Your task to perform on an android device: Open internet settings Image 0: 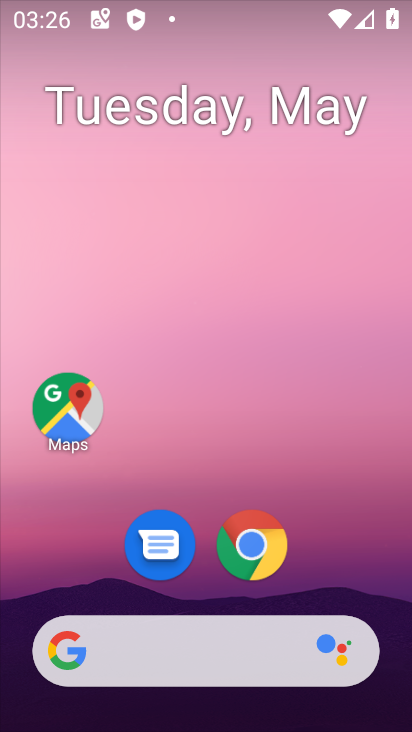
Step 0: drag from (388, 604) to (298, 81)
Your task to perform on an android device: Open internet settings Image 1: 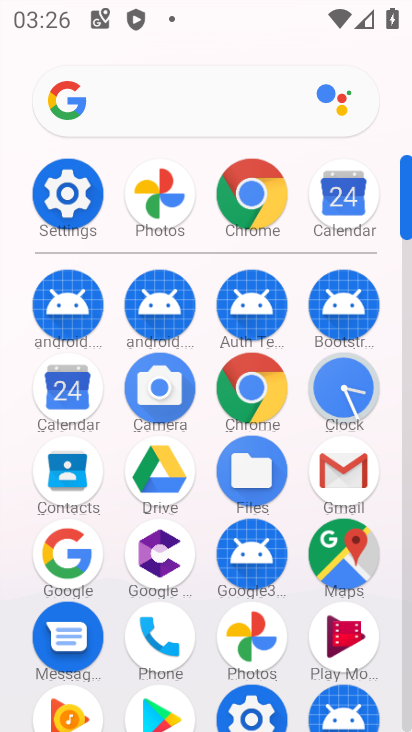
Step 1: click (408, 697)
Your task to perform on an android device: Open internet settings Image 2: 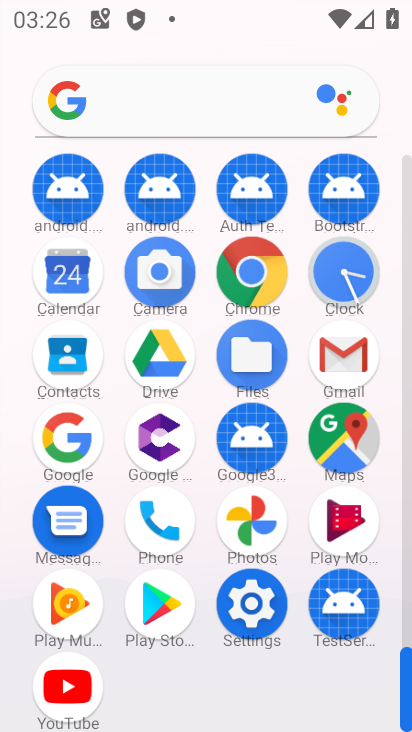
Step 2: click (250, 599)
Your task to perform on an android device: Open internet settings Image 3: 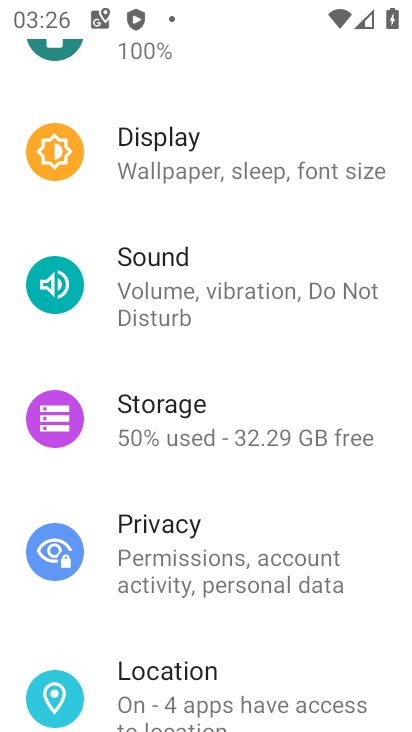
Step 3: drag from (330, 166) to (333, 470)
Your task to perform on an android device: Open internet settings Image 4: 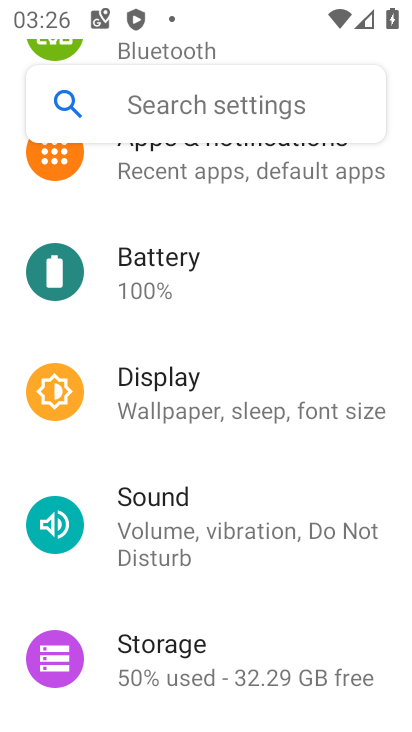
Step 4: drag from (347, 198) to (345, 520)
Your task to perform on an android device: Open internet settings Image 5: 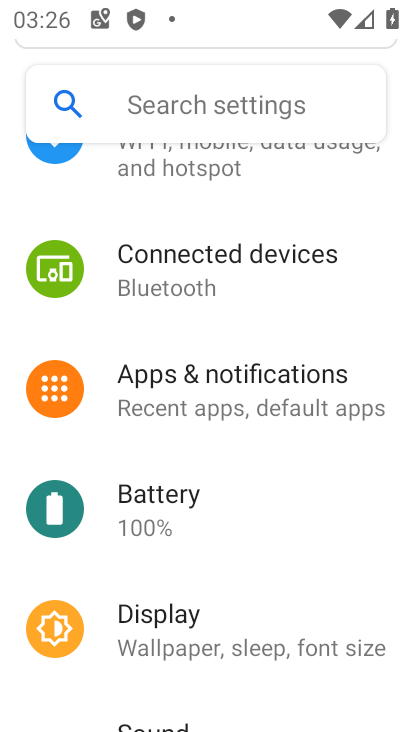
Step 5: drag from (307, 232) to (313, 562)
Your task to perform on an android device: Open internet settings Image 6: 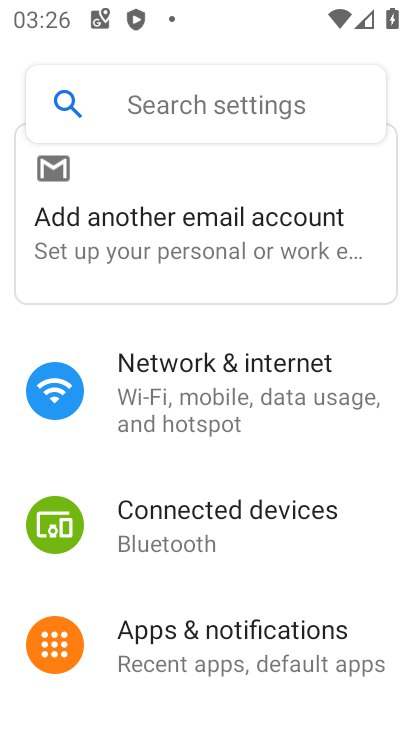
Step 6: click (176, 391)
Your task to perform on an android device: Open internet settings Image 7: 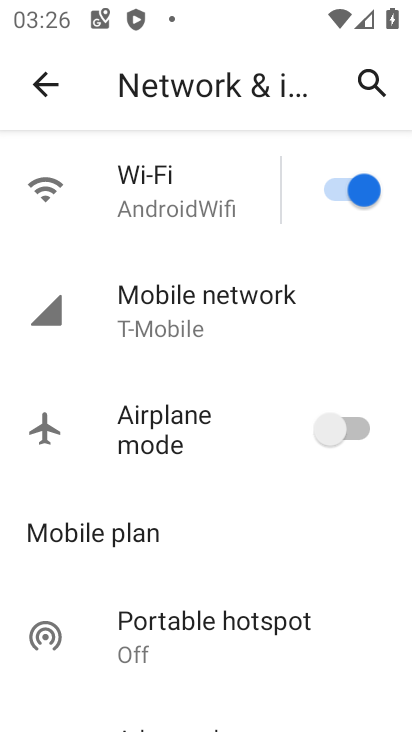
Step 7: click (146, 165)
Your task to perform on an android device: Open internet settings Image 8: 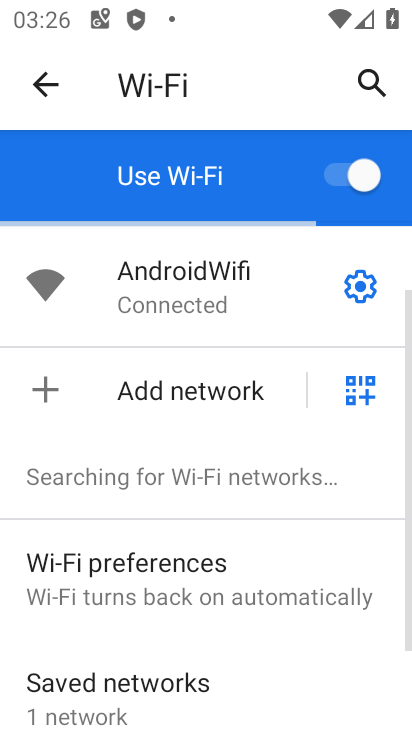
Step 8: drag from (336, 668) to (275, 333)
Your task to perform on an android device: Open internet settings Image 9: 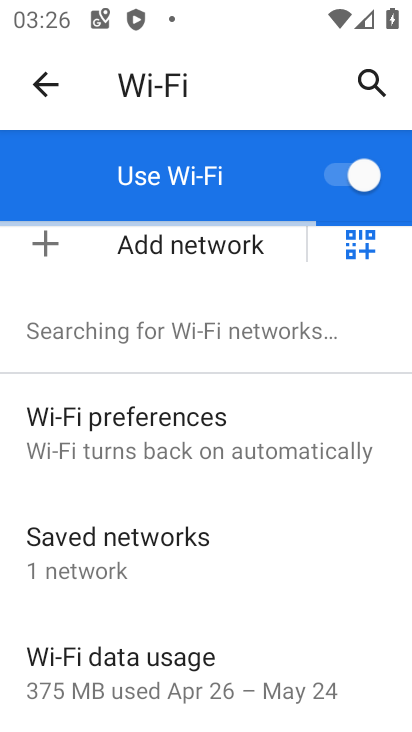
Step 9: drag from (275, 333) to (286, 625)
Your task to perform on an android device: Open internet settings Image 10: 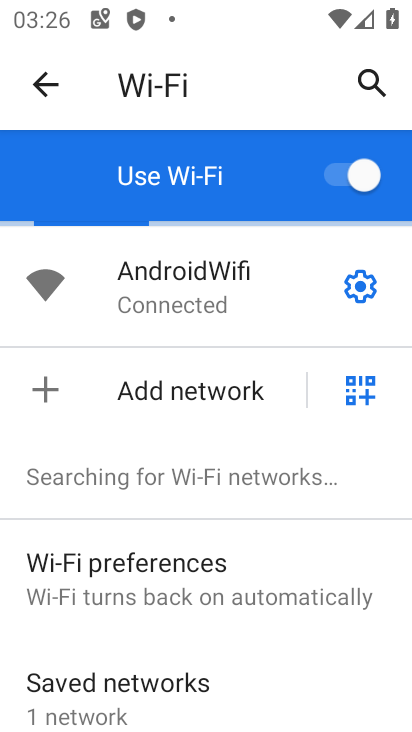
Step 10: click (359, 284)
Your task to perform on an android device: Open internet settings Image 11: 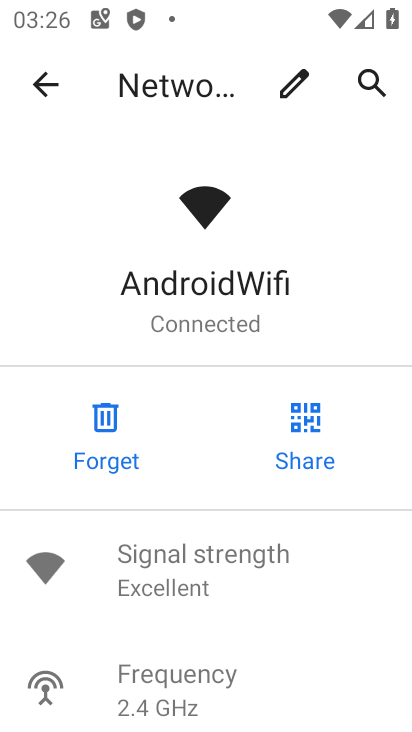
Step 11: drag from (306, 568) to (163, 166)
Your task to perform on an android device: Open internet settings Image 12: 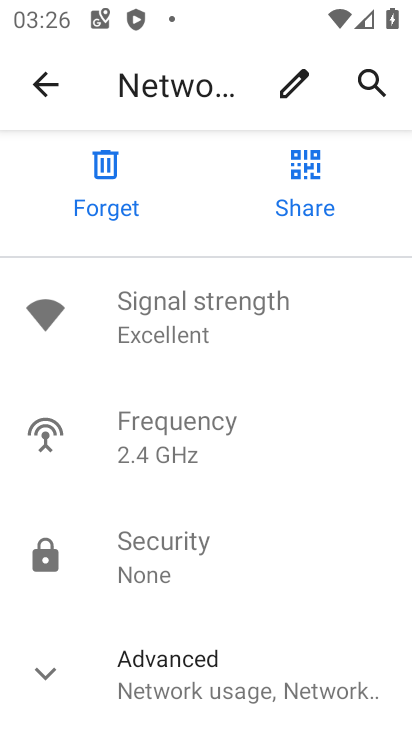
Step 12: click (48, 674)
Your task to perform on an android device: Open internet settings Image 13: 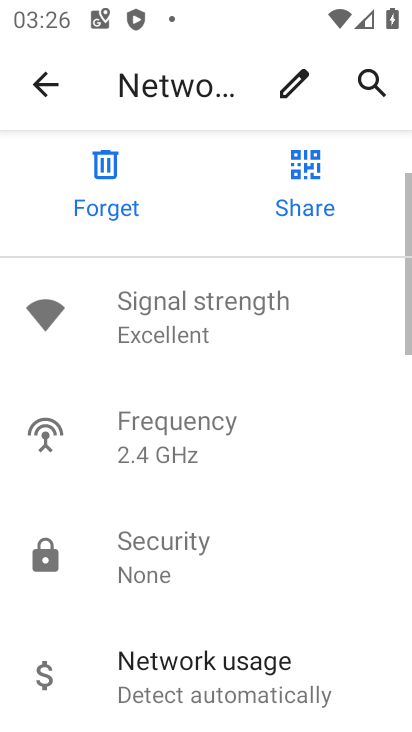
Step 13: task complete